Your task to perform on an android device: turn off translation in the chrome app Image 0: 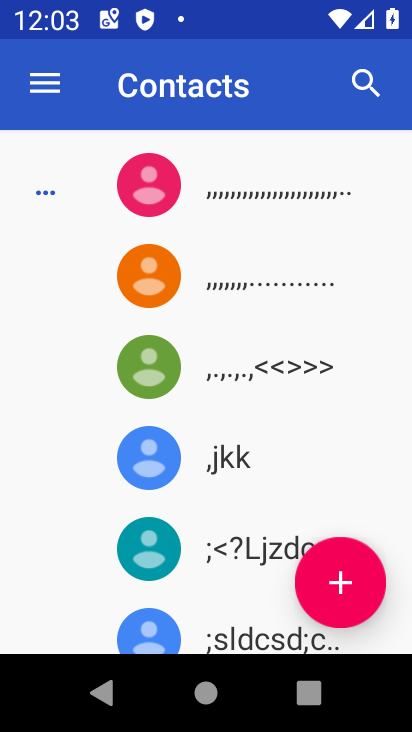
Step 0: press home button
Your task to perform on an android device: turn off translation in the chrome app Image 1: 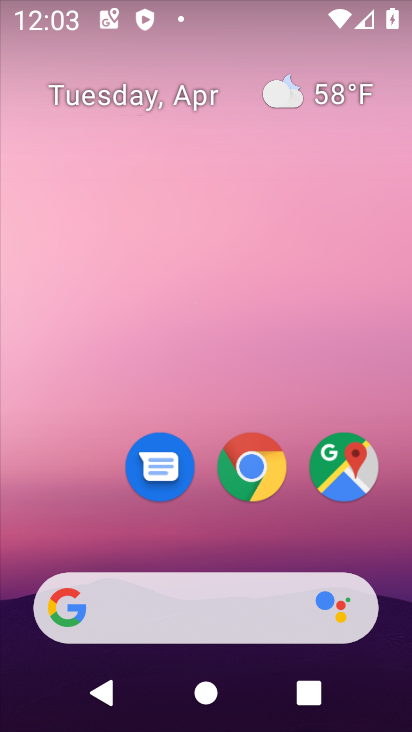
Step 1: click (266, 450)
Your task to perform on an android device: turn off translation in the chrome app Image 2: 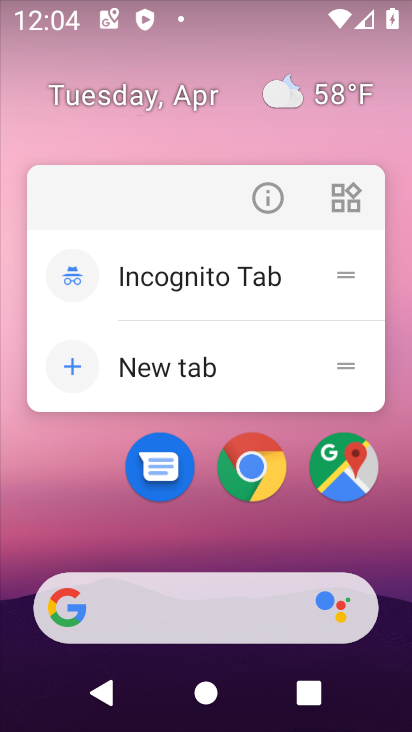
Step 2: click (199, 361)
Your task to perform on an android device: turn off translation in the chrome app Image 3: 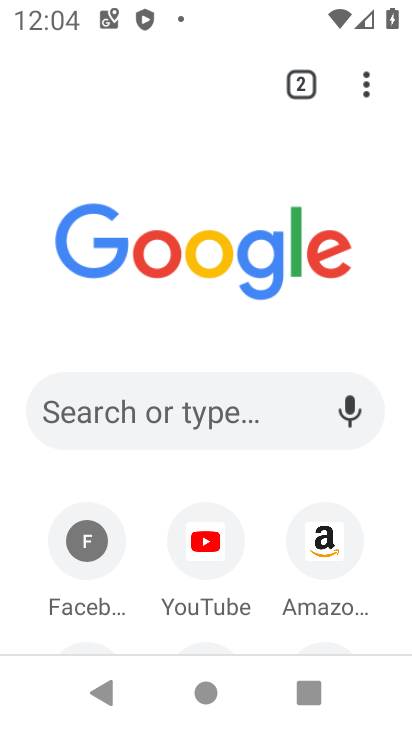
Step 3: click (366, 90)
Your task to perform on an android device: turn off translation in the chrome app Image 4: 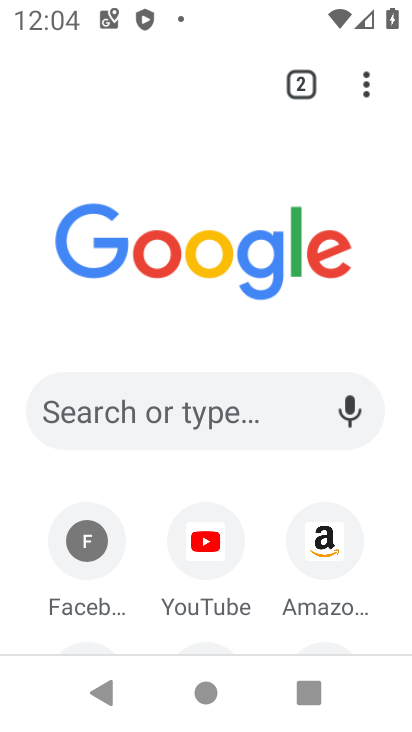
Step 4: click (374, 96)
Your task to perform on an android device: turn off translation in the chrome app Image 5: 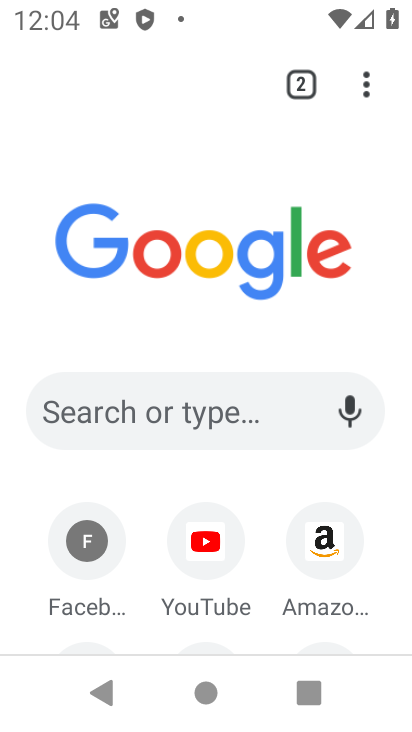
Step 5: click (374, 96)
Your task to perform on an android device: turn off translation in the chrome app Image 6: 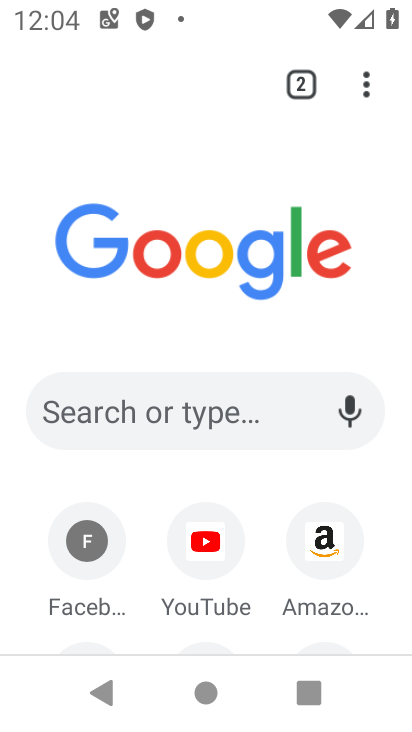
Step 6: click (381, 95)
Your task to perform on an android device: turn off translation in the chrome app Image 7: 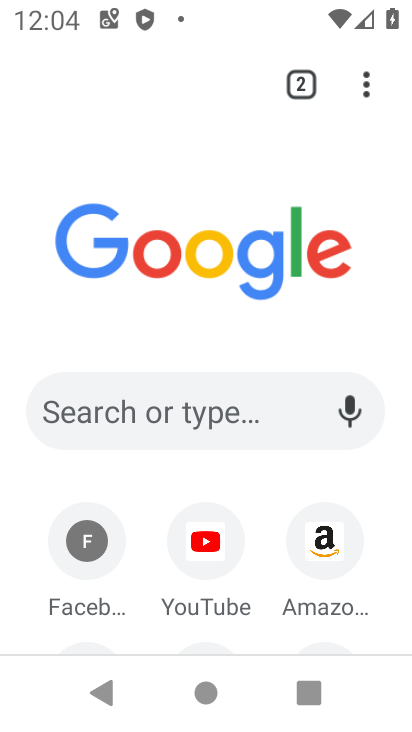
Step 7: click (364, 74)
Your task to perform on an android device: turn off translation in the chrome app Image 8: 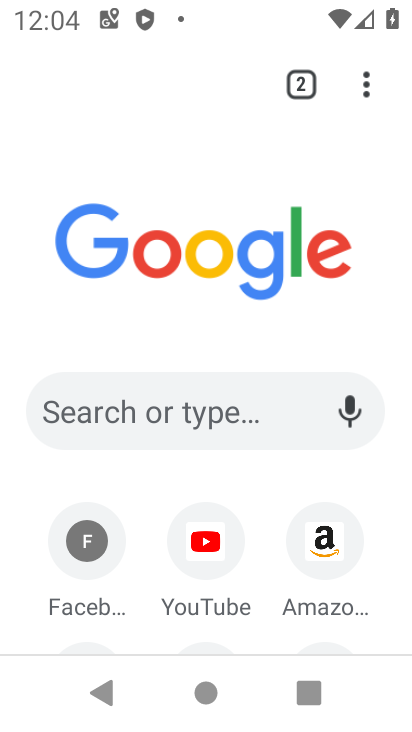
Step 8: click (372, 83)
Your task to perform on an android device: turn off translation in the chrome app Image 9: 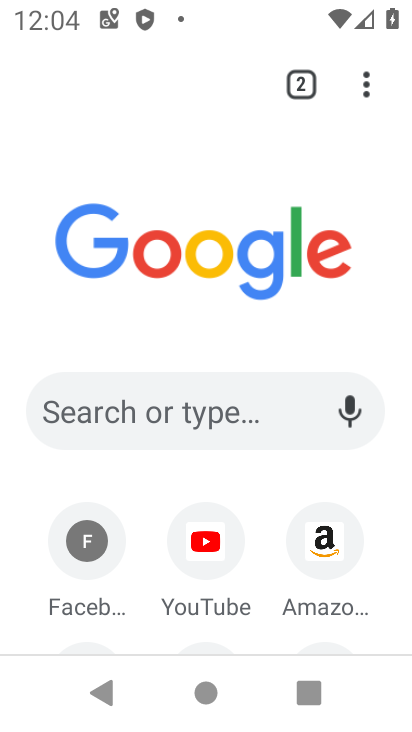
Step 9: click (366, 79)
Your task to perform on an android device: turn off translation in the chrome app Image 10: 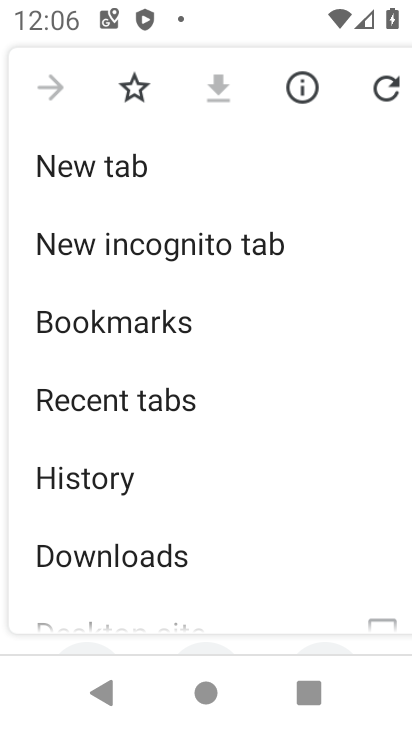
Step 10: drag from (187, 567) to (184, 113)
Your task to perform on an android device: turn off translation in the chrome app Image 11: 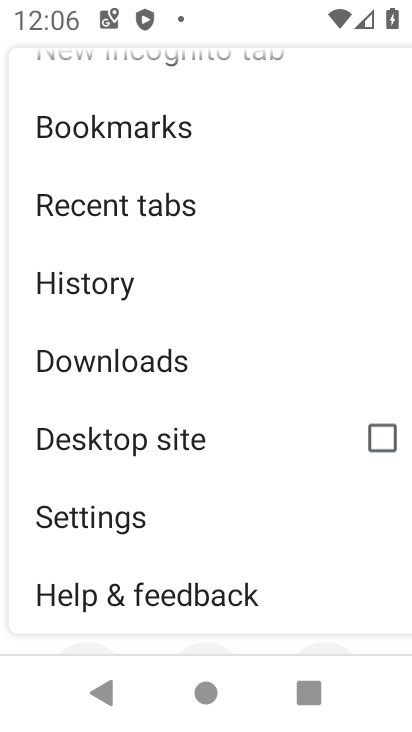
Step 11: drag from (166, 562) to (179, 120)
Your task to perform on an android device: turn off translation in the chrome app Image 12: 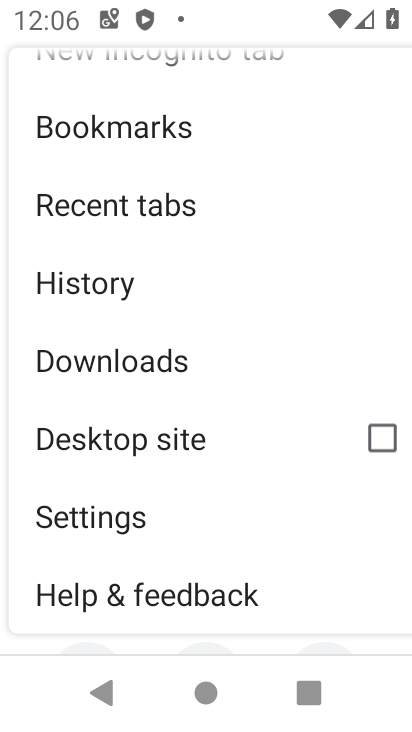
Step 12: click (112, 521)
Your task to perform on an android device: turn off translation in the chrome app Image 13: 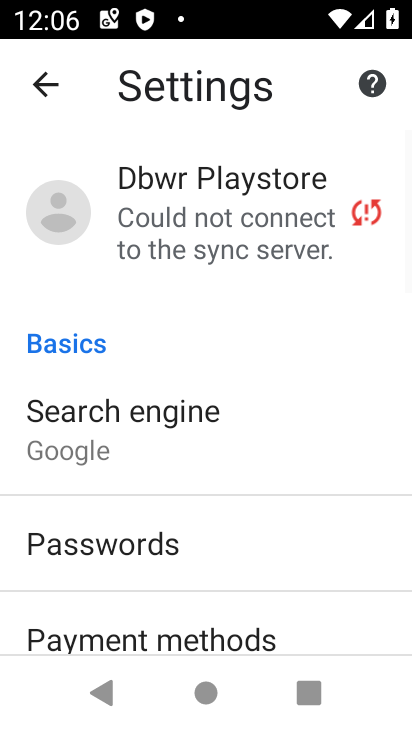
Step 13: drag from (242, 579) to (225, 48)
Your task to perform on an android device: turn off translation in the chrome app Image 14: 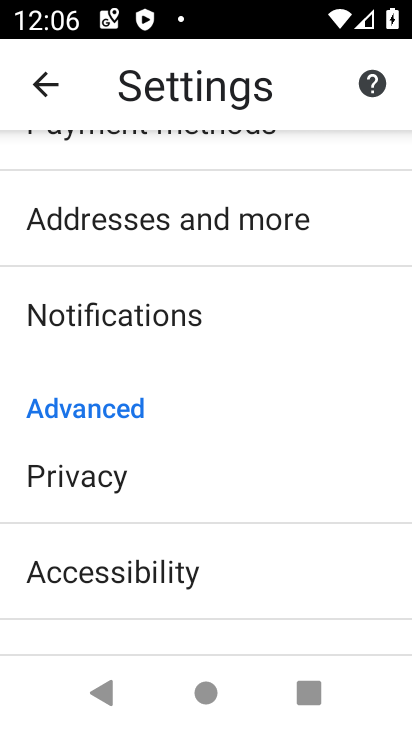
Step 14: drag from (97, 550) to (106, 141)
Your task to perform on an android device: turn off translation in the chrome app Image 15: 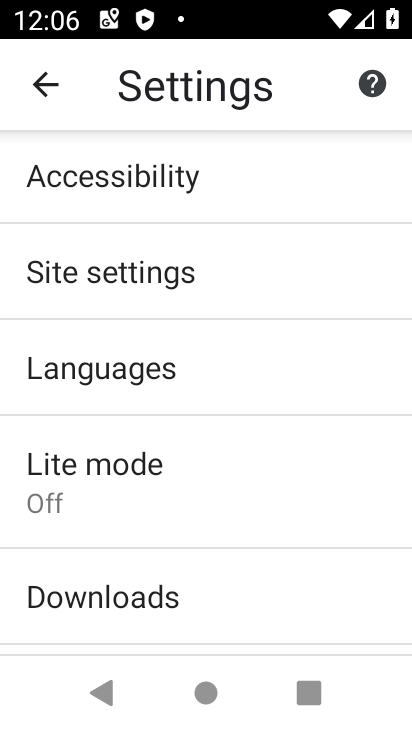
Step 15: click (240, 373)
Your task to perform on an android device: turn off translation in the chrome app Image 16: 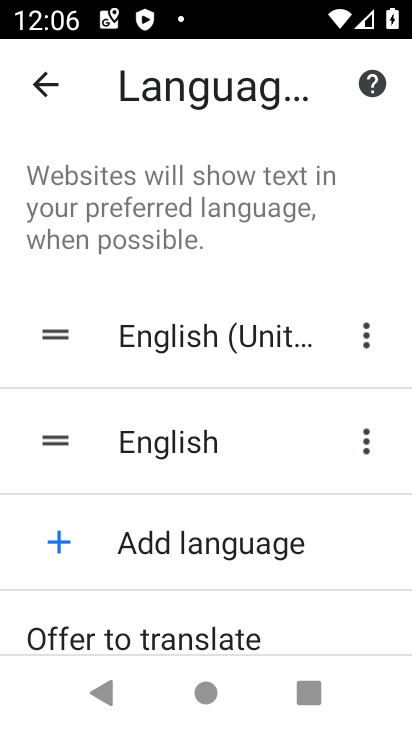
Step 16: drag from (143, 636) to (209, 102)
Your task to perform on an android device: turn off translation in the chrome app Image 17: 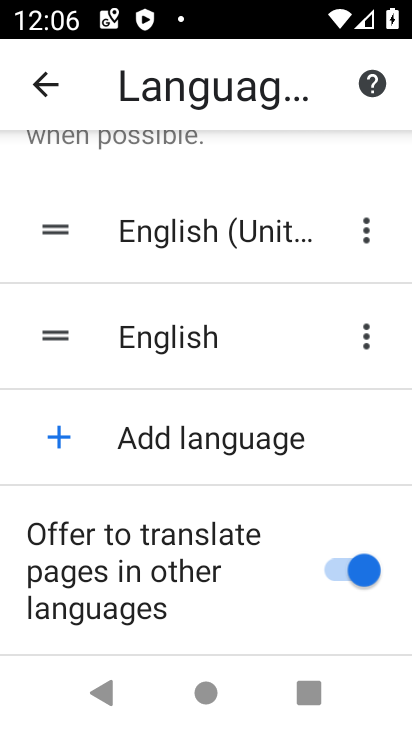
Step 17: click (344, 575)
Your task to perform on an android device: turn off translation in the chrome app Image 18: 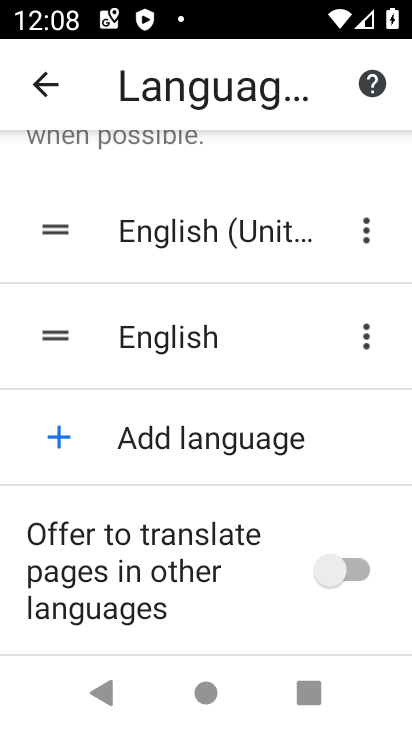
Step 18: task complete